Your task to perform on an android device: Search for sushi restaurants on Maps Image 0: 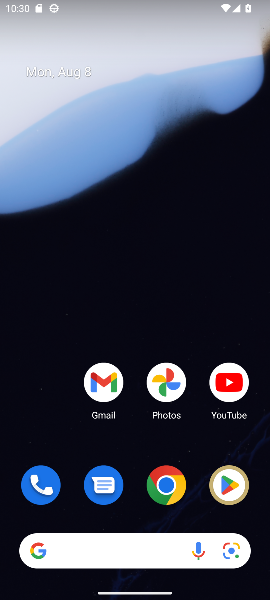
Step 0: drag from (144, 502) to (149, 122)
Your task to perform on an android device: Search for sushi restaurants on Maps Image 1: 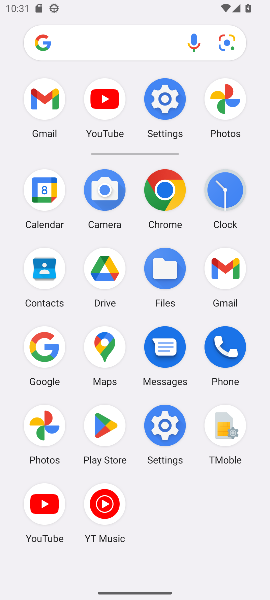
Step 1: click (111, 339)
Your task to perform on an android device: Search for sushi restaurants on Maps Image 2: 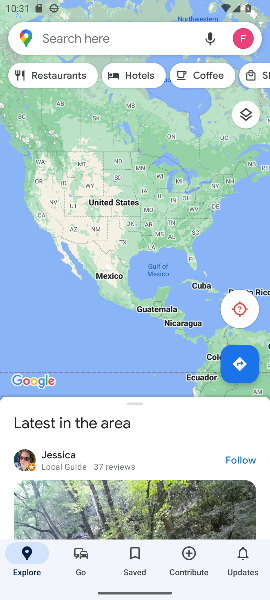
Step 2: click (68, 38)
Your task to perform on an android device: Search for sushi restaurants on Maps Image 3: 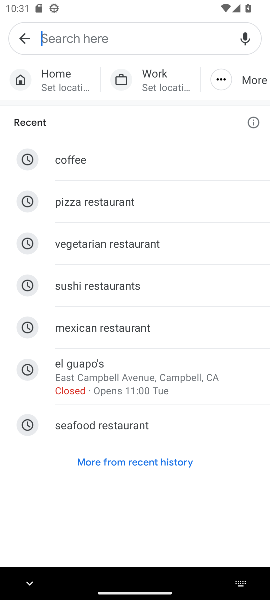
Step 3: type " sushi restaurants"
Your task to perform on an android device: Search for sushi restaurants on Maps Image 4: 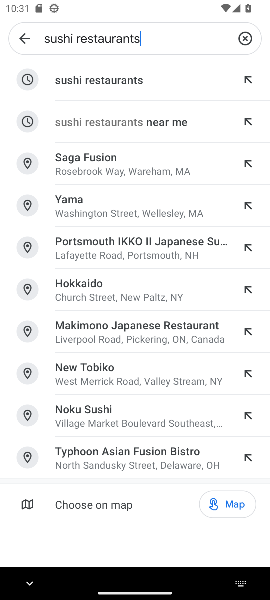
Step 4: click (118, 76)
Your task to perform on an android device: Search for sushi restaurants on Maps Image 5: 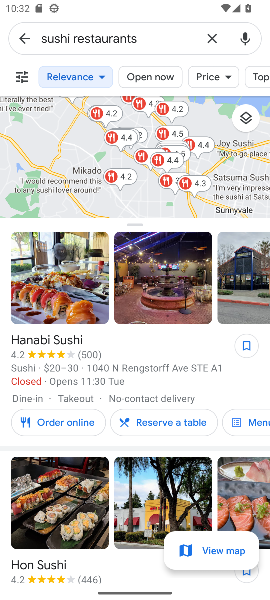
Step 5: task complete